Your task to perform on an android device: Open sound settings Image 0: 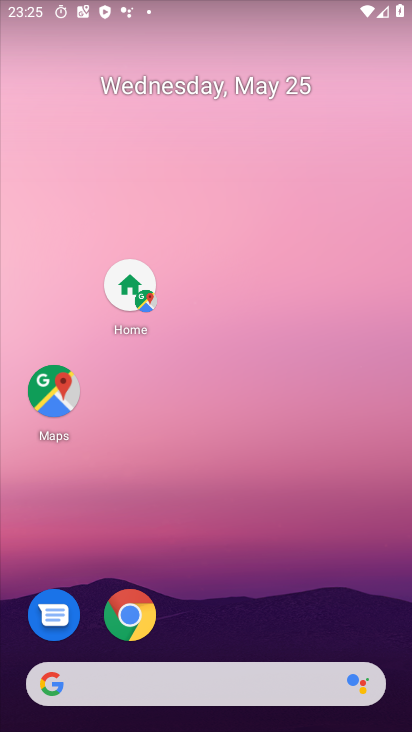
Step 0: press home button
Your task to perform on an android device: Open sound settings Image 1: 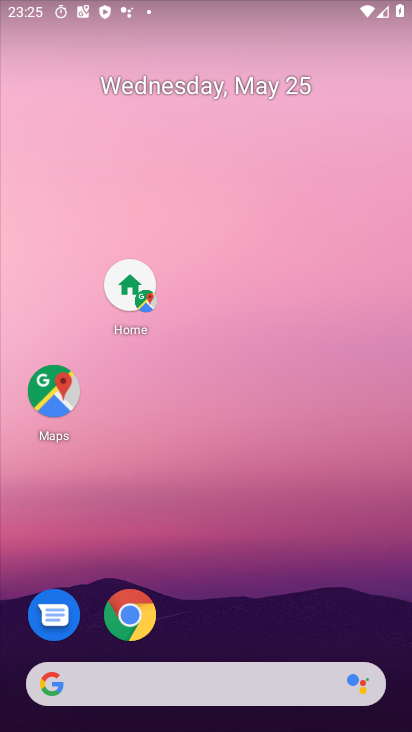
Step 1: drag from (308, 628) to (384, 71)
Your task to perform on an android device: Open sound settings Image 2: 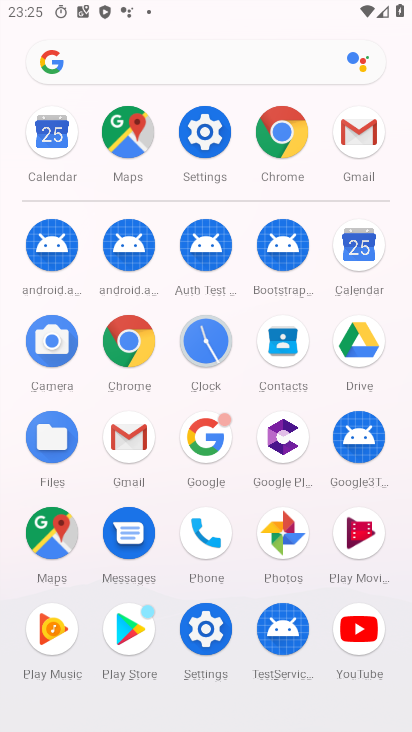
Step 2: click (202, 136)
Your task to perform on an android device: Open sound settings Image 3: 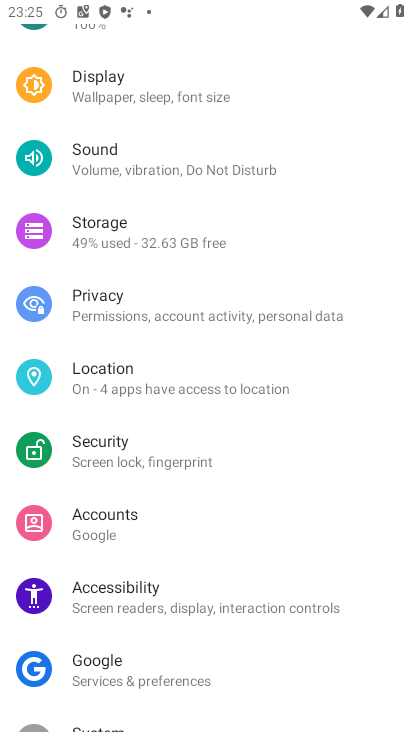
Step 3: click (109, 160)
Your task to perform on an android device: Open sound settings Image 4: 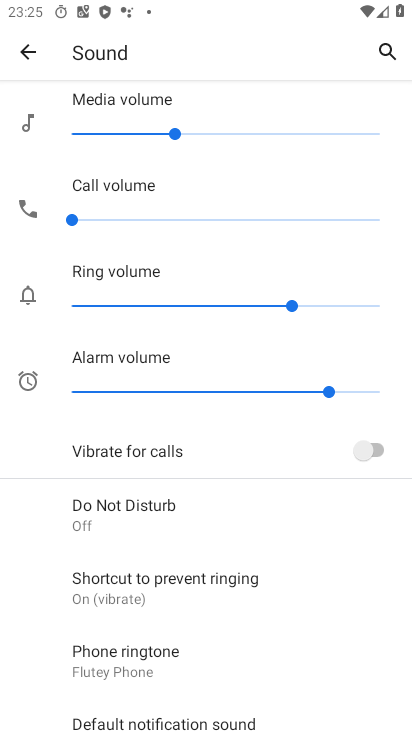
Step 4: task complete